Your task to perform on an android device: turn on the 12-hour format for clock Image 0: 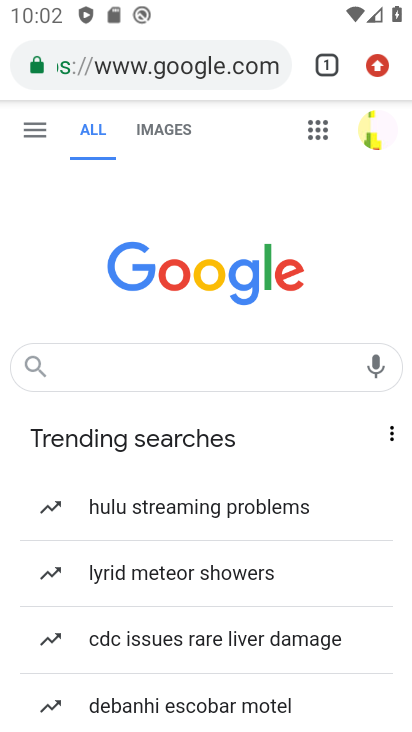
Step 0: press home button
Your task to perform on an android device: turn on the 12-hour format for clock Image 1: 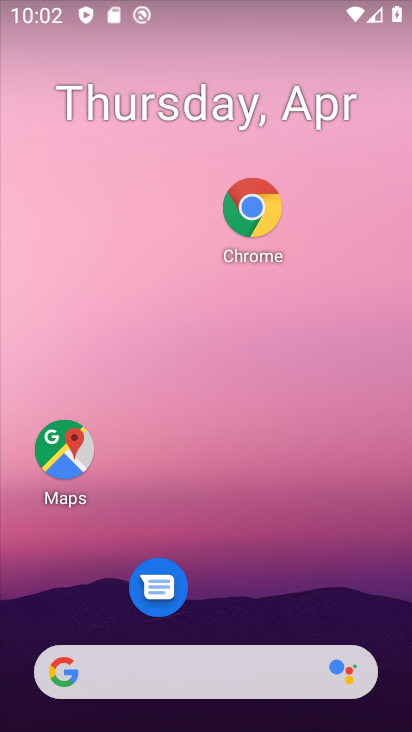
Step 1: drag from (211, 504) to (236, 91)
Your task to perform on an android device: turn on the 12-hour format for clock Image 2: 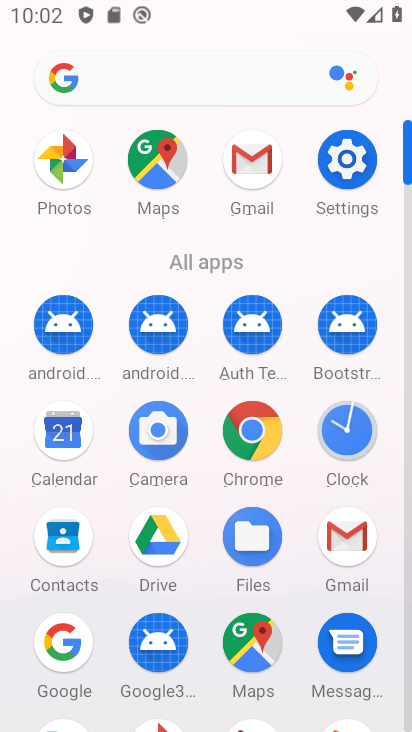
Step 2: click (349, 417)
Your task to perform on an android device: turn on the 12-hour format for clock Image 3: 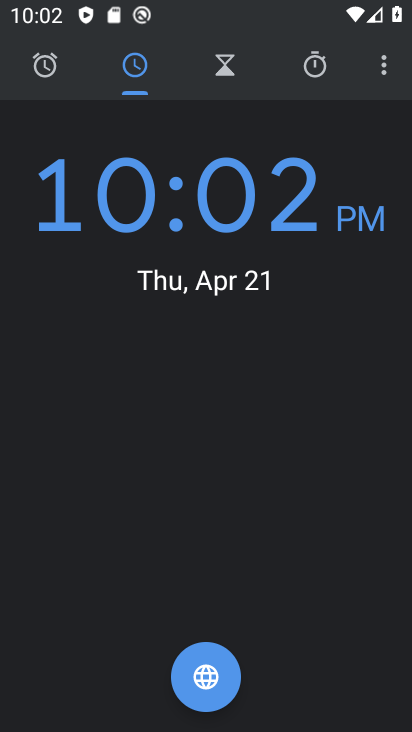
Step 3: click (380, 66)
Your task to perform on an android device: turn on the 12-hour format for clock Image 4: 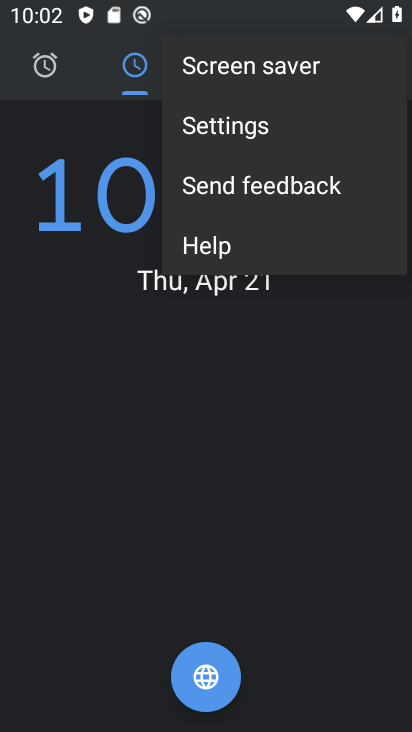
Step 4: click (246, 134)
Your task to perform on an android device: turn on the 12-hour format for clock Image 5: 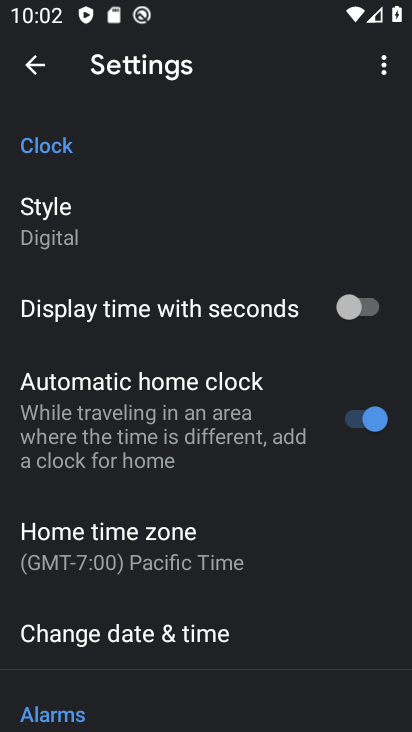
Step 5: click (152, 639)
Your task to perform on an android device: turn on the 12-hour format for clock Image 6: 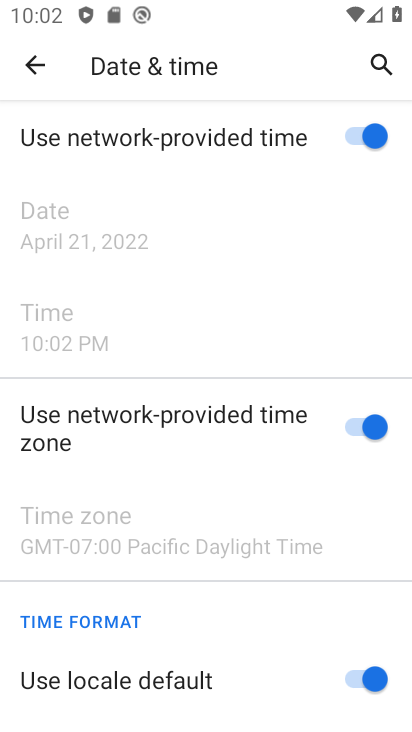
Step 6: task complete